Your task to perform on an android device: Show the shopping cart on newegg. Search for lenovo thinkpad on newegg, select the first entry, and add it to the cart. Image 0: 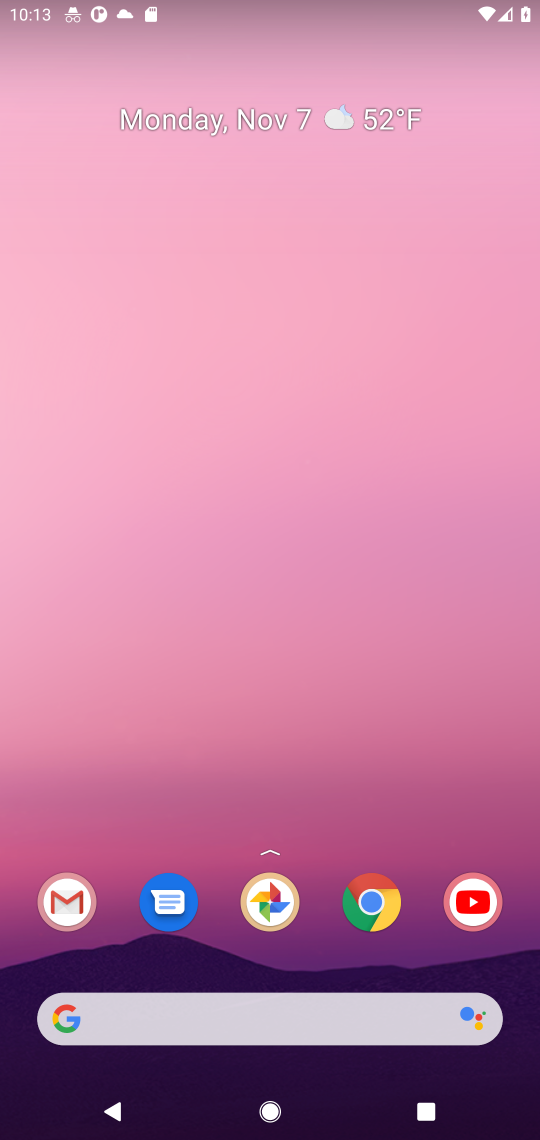
Step 0: click (377, 916)
Your task to perform on an android device: Show the shopping cart on newegg. Search for lenovo thinkpad on newegg, select the first entry, and add it to the cart. Image 1: 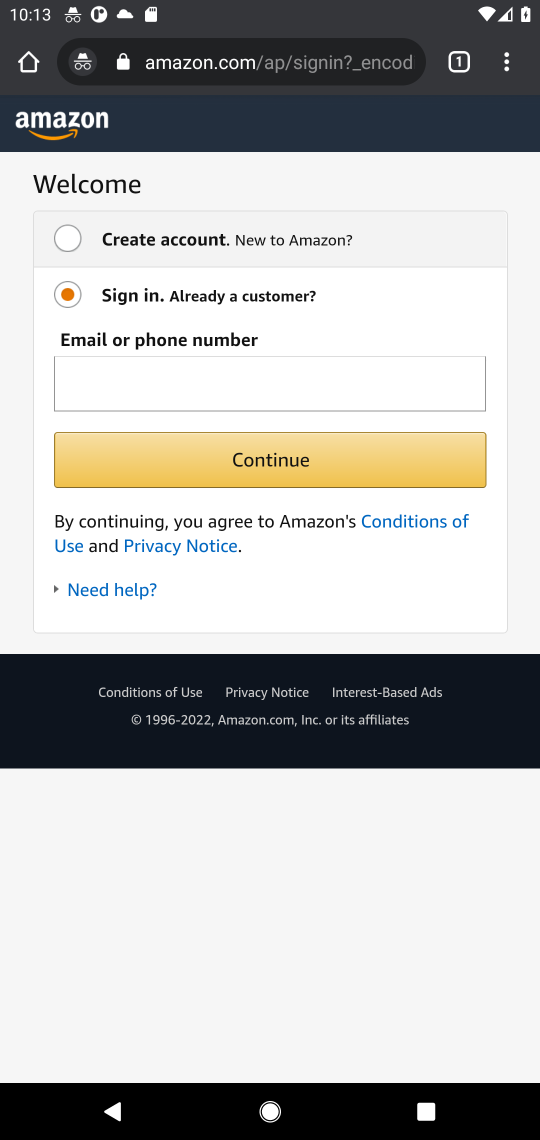
Step 1: click (281, 56)
Your task to perform on an android device: Show the shopping cart on newegg. Search for lenovo thinkpad on newegg, select the first entry, and add it to the cart. Image 2: 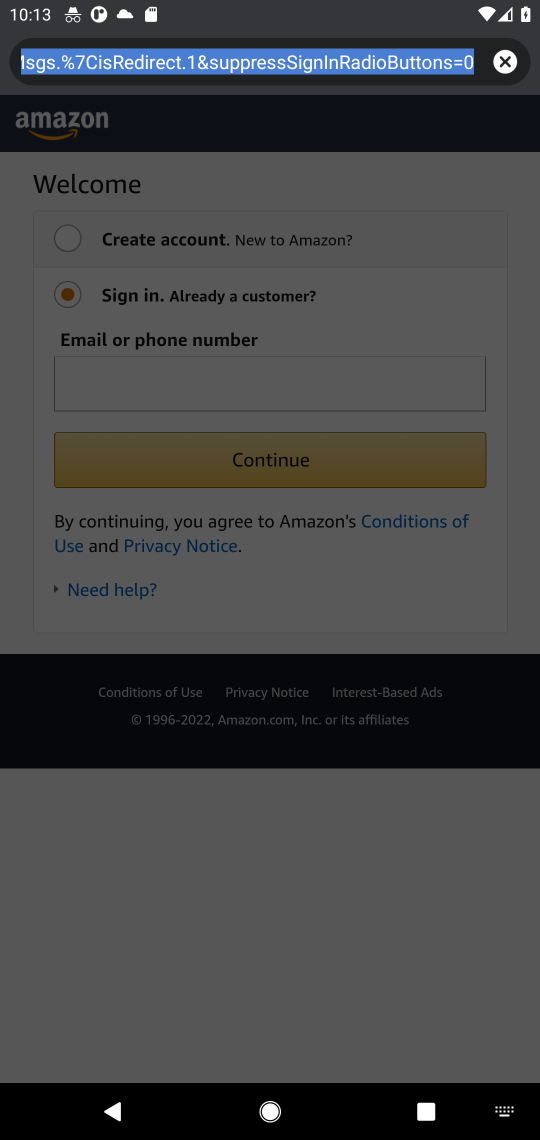
Step 2: type "newegg.com"
Your task to perform on an android device: Show the shopping cart on newegg. Search for lenovo thinkpad on newegg, select the first entry, and add it to the cart. Image 3: 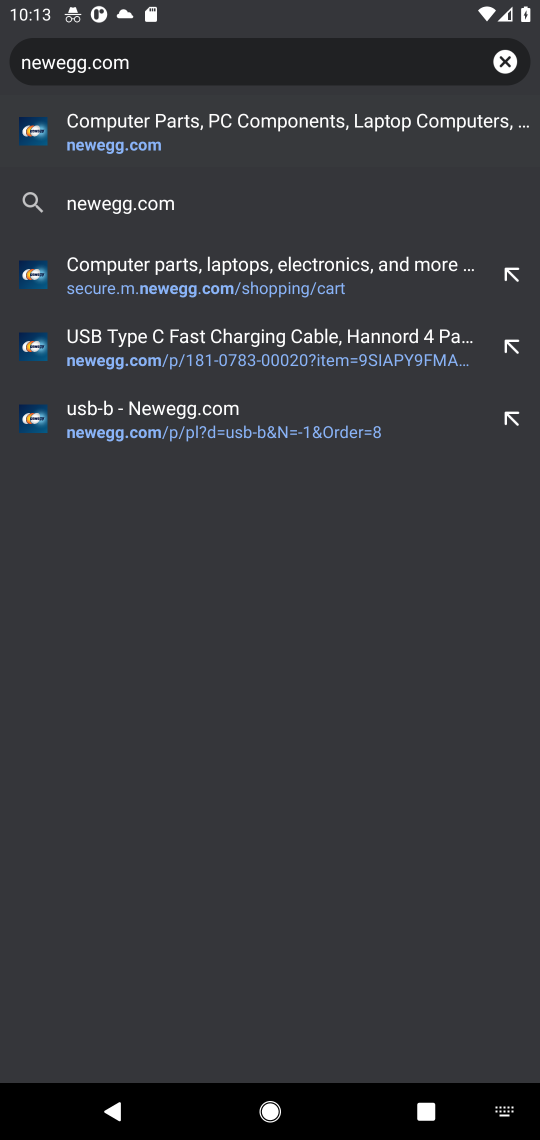
Step 3: click (142, 127)
Your task to perform on an android device: Show the shopping cart on newegg. Search for lenovo thinkpad on newegg, select the first entry, and add it to the cart. Image 4: 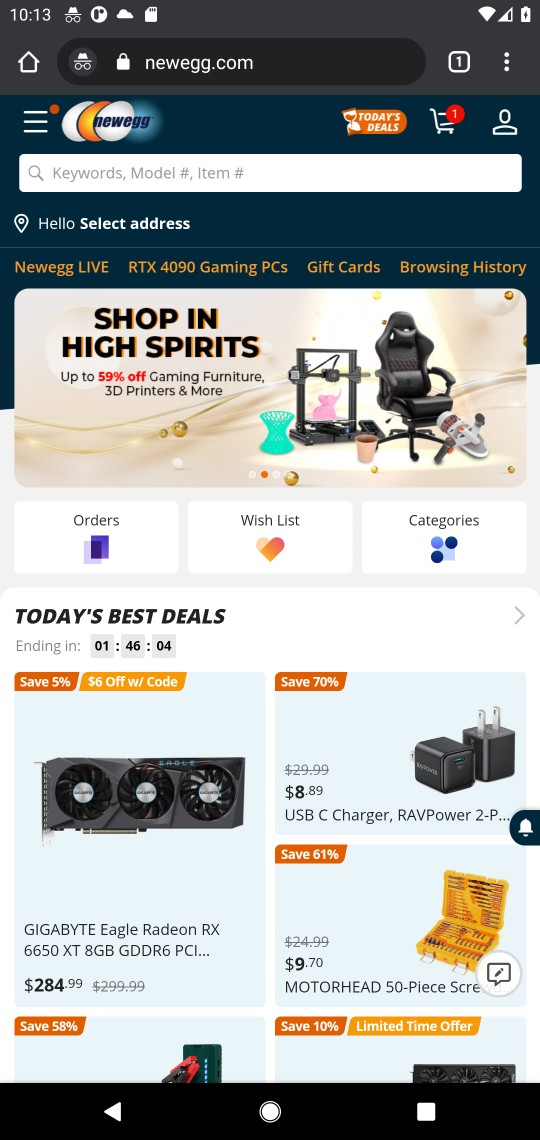
Step 4: click (446, 134)
Your task to perform on an android device: Show the shopping cart on newegg. Search for lenovo thinkpad on newegg, select the first entry, and add it to the cart. Image 5: 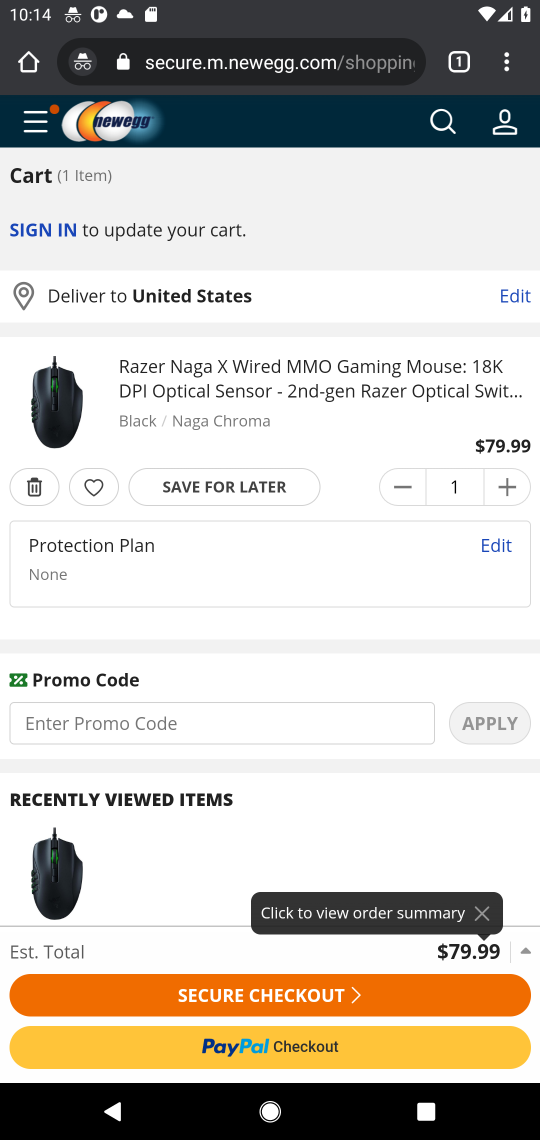
Step 5: click (443, 133)
Your task to perform on an android device: Show the shopping cart on newegg. Search for lenovo thinkpad on newegg, select the first entry, and add it to the cart. Image 6: 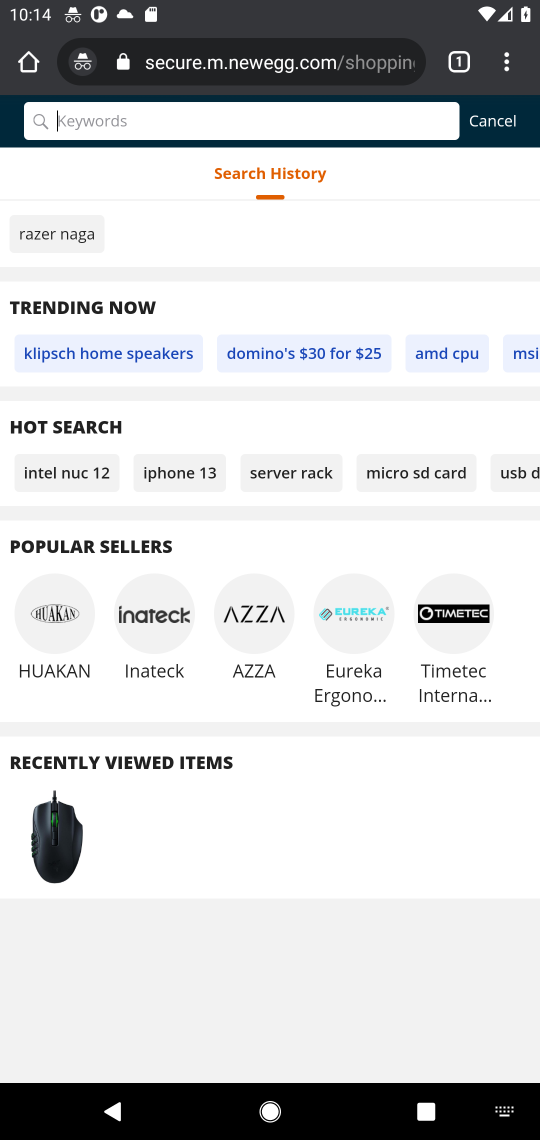
Step 6: type "lenovo thinkpad "
Your task to perform on an android device: Show the shopping cart on newegg. Search for lenovo thinkpad on newegg, select the first entry, and add it to the cart. Image 7: 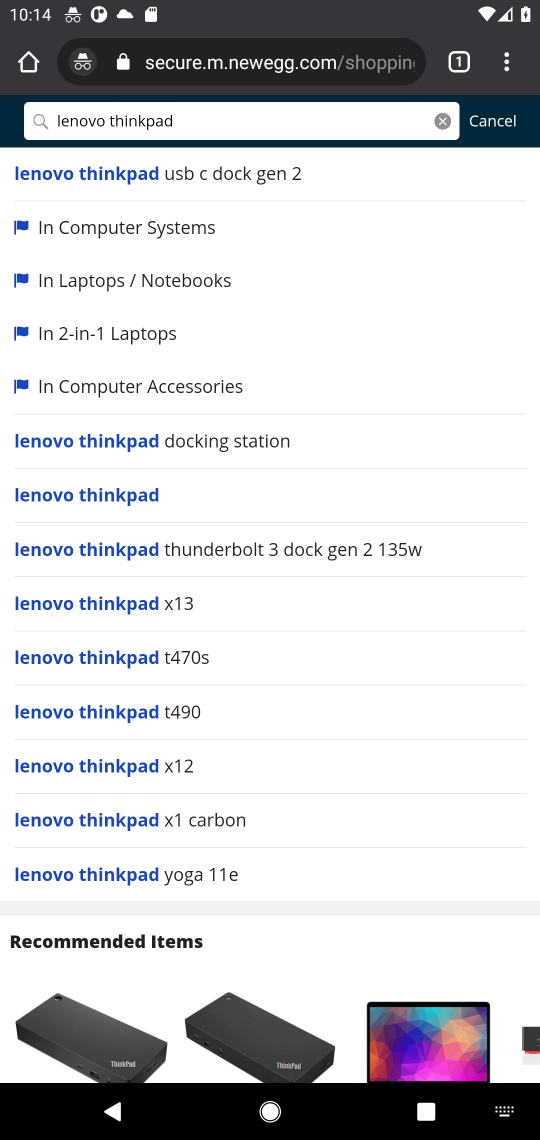
Step 7: click (117, 498)
Your task to perform on an android device: Show the shopping cart on newegg. Search for lenovo thinkpad on newegg, select the first entry, and add it to the cart. Image 8: 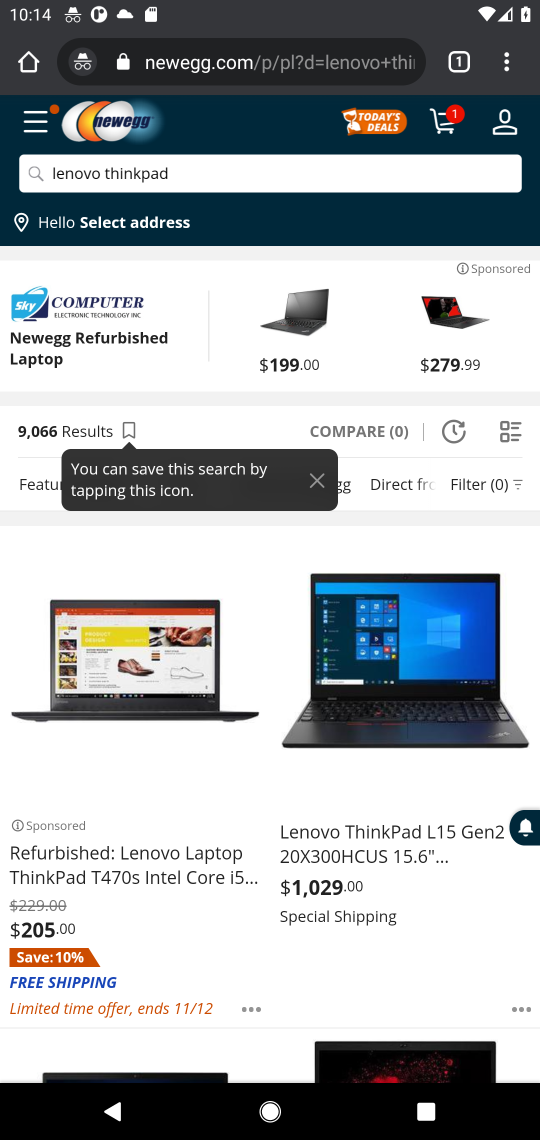
Step 8: click (134, 690)
Your task to perform on an android device: Show the shopping cart on newegg. Search for lenovo thinkpad on newegg, select the first entry, and add it to the cart. Image 9: 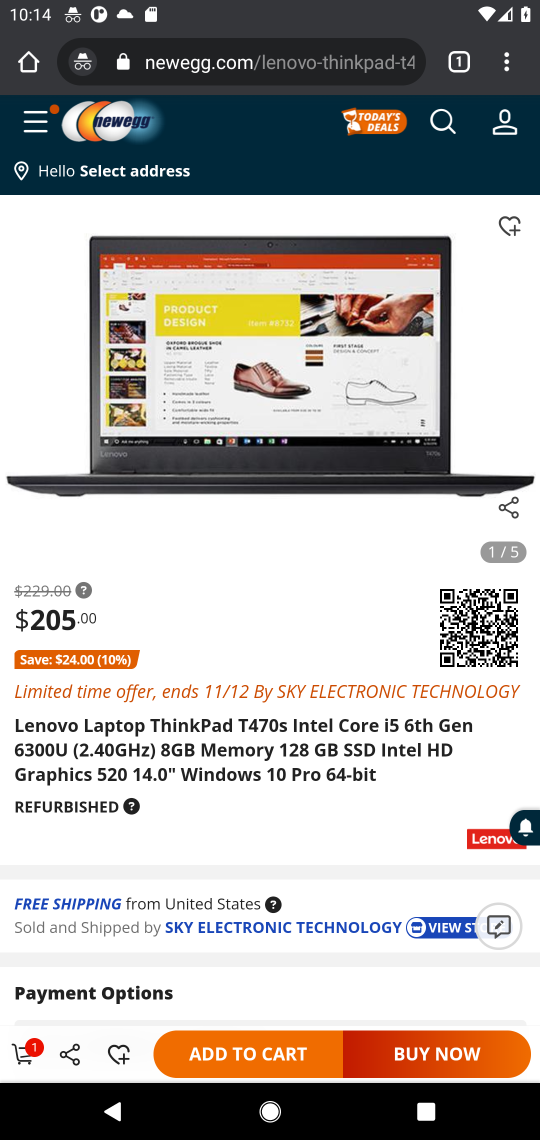
Step 9: click (270, 1051)
Your task to perform on an android device: Show the shopping cart on newegg. Search for lenovo thinkpad on newegg, select the first entry, and add it to the cart. Image 10: 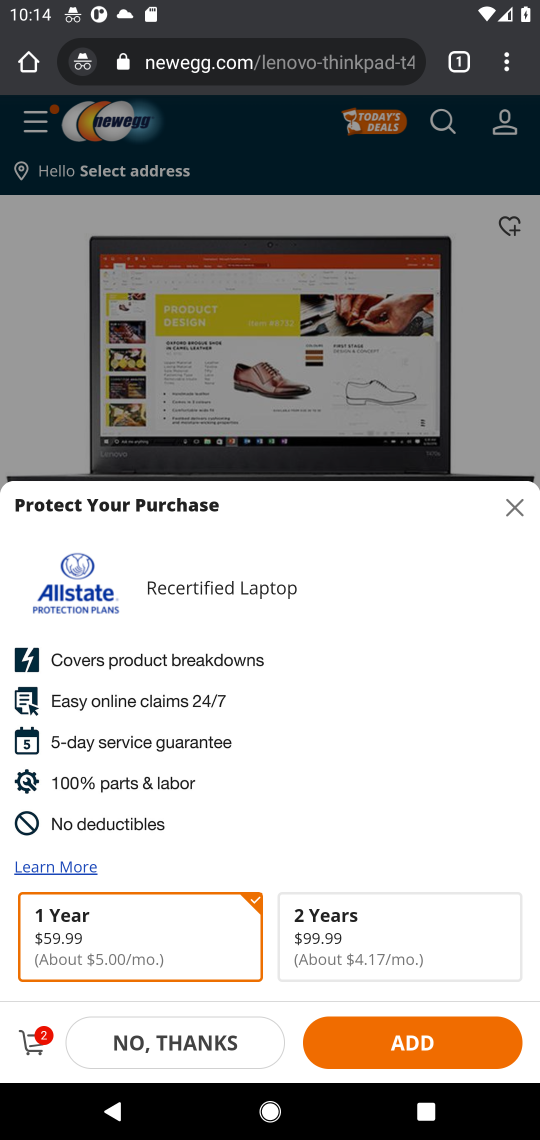
Step 10: task complete